Your task to perform on an android device: Go to notification settings Image 0: 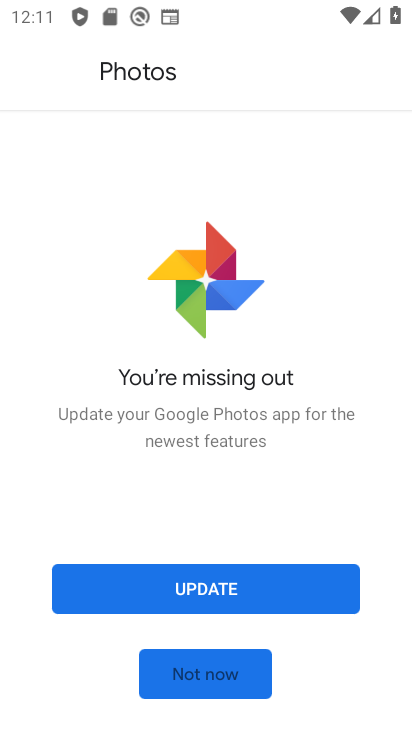
Step 0: press home button
Your task to perform on an android device: Go to notification settings Image 1: 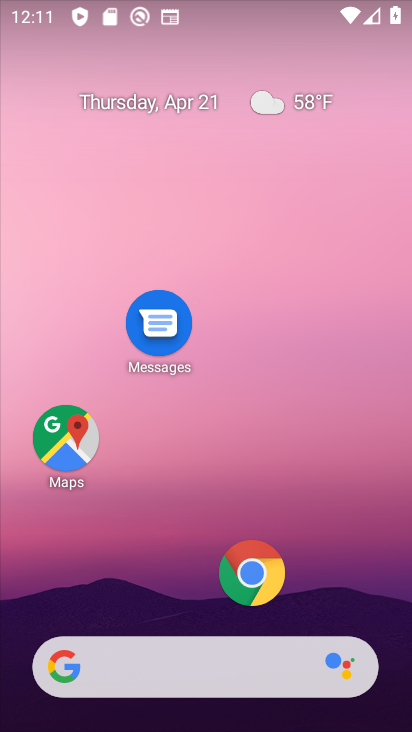
Step 1: drag from (168, 564) to (180, 114)
Your task to perform on an android device: Go to notification settings Image 2: 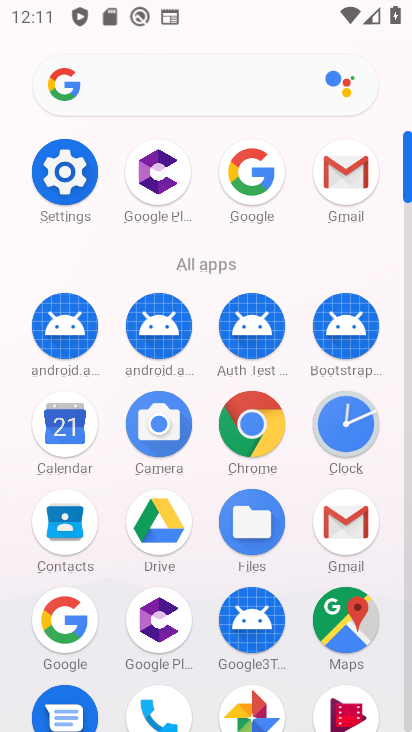
Step 2: click (66, 168)
Your task to perform on an android device: Go to notification settings Image 3: 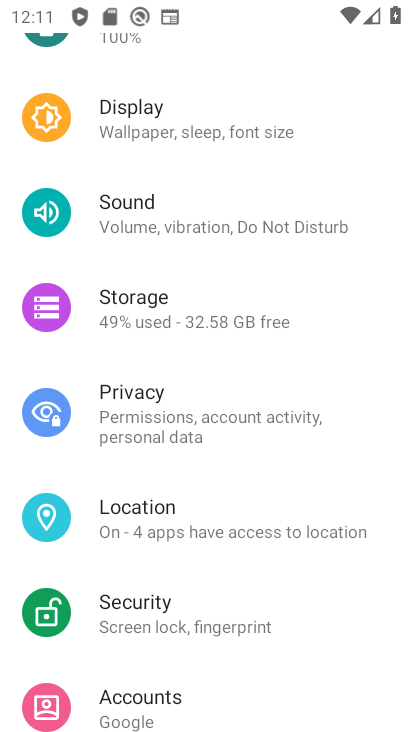
Step 3: drag from (222, 286) to (264, 618)
Your task to perform on an android device: Go to notification settings Image 4: 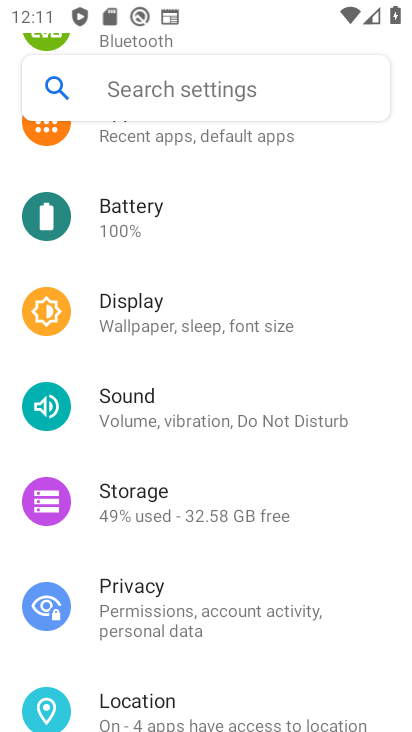
Step 4: click (133, 133)
Your task to perform on an android device: Go to notification settings Image 5: 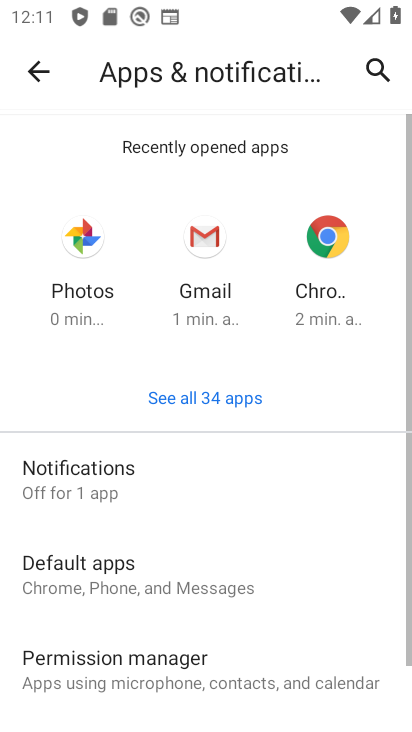
Step 5: click (113, 485)
Your task to perform on an android device: Go to notification settings Image 6: 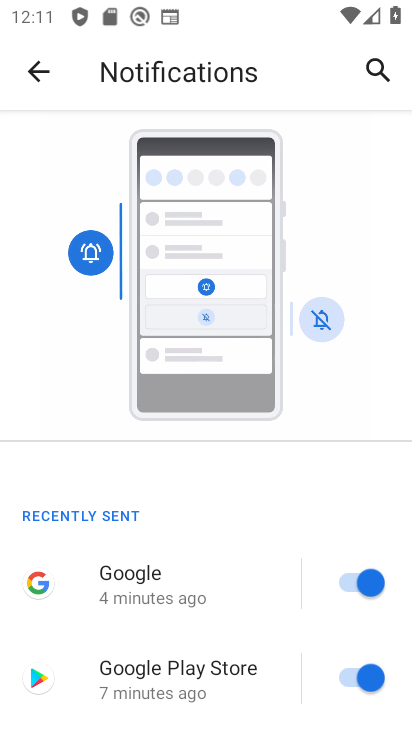
Step 6: drag from (211, 590) to (185, 98)
Your task to perform on an android device: Go to notification settings Image 7: 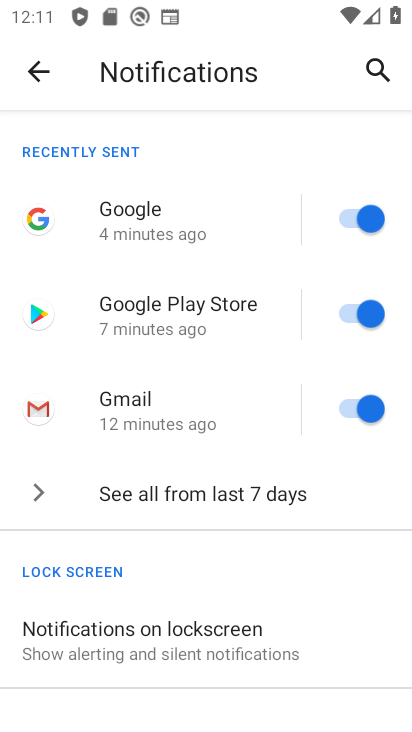
Step 7: click (148, 638)
Your task to perform on an android device: Go to notification settings Image 8: 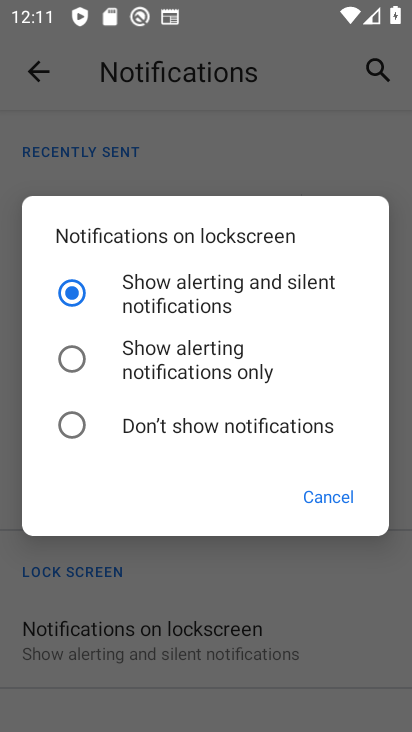
Step 8: click (306, 162)
Your task to perform on an android device: Go to notification settings Image 9: 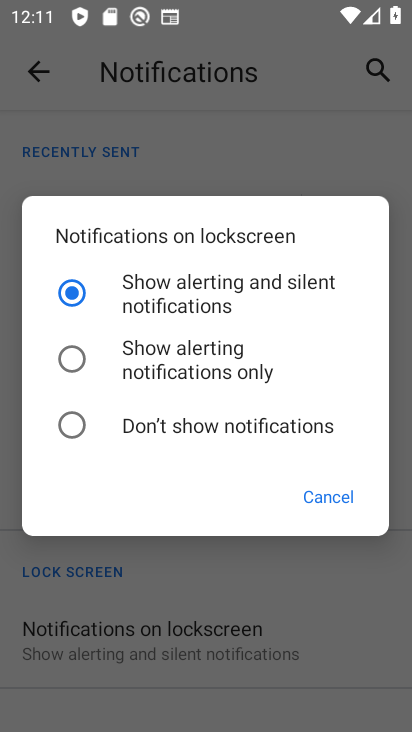
Step 9: task complete